Your task to perform on an android device: Open Google Chrome and open the bookmarks view Image 0: 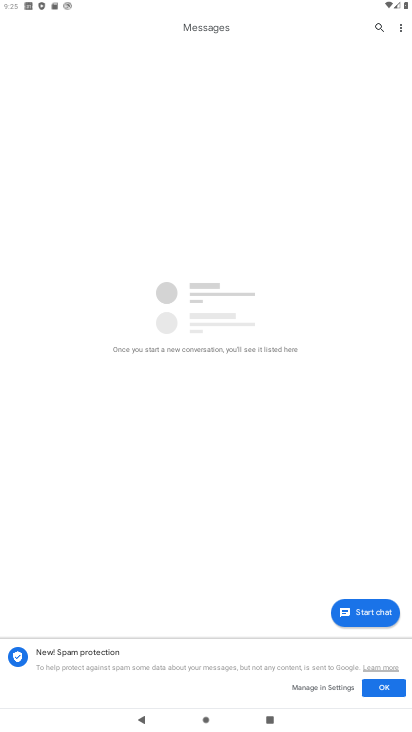
Step 0: press home button
Your task to perform on an android device: Open Google Chrome and open the bookmarks view Image 1: 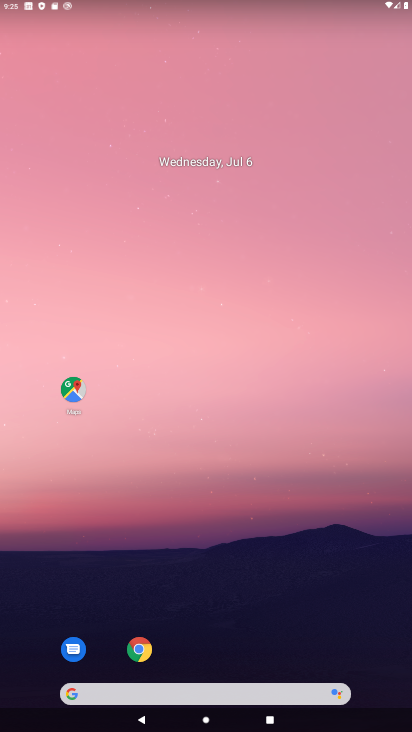
Step 1: click (126, 637)
Your task to perform on an android device: Open Google Chrome and open the bookmarks view Image 2: 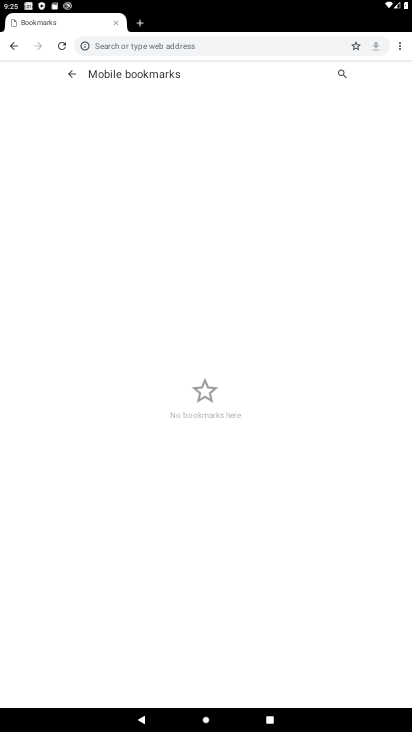
Step 2: task complete